Your task to perform on an android device: Search for duracell triple a on ebay, select the first entry, add it to the cart, then select checkout. Image 0: 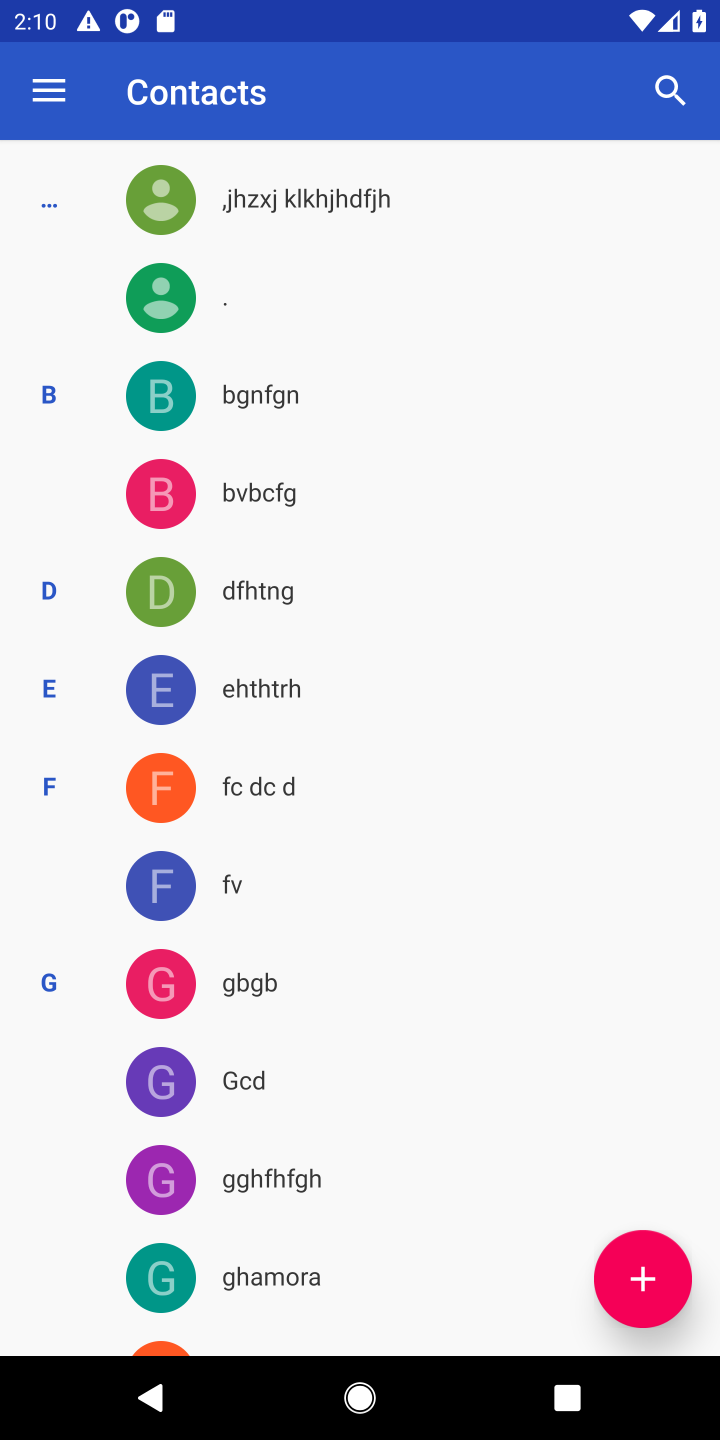
Step 0: press home button
Your task to perform on an android device: Search for duracell triple a on ebay, select the first entry, add it to the cart, then select checkout. Image 1: 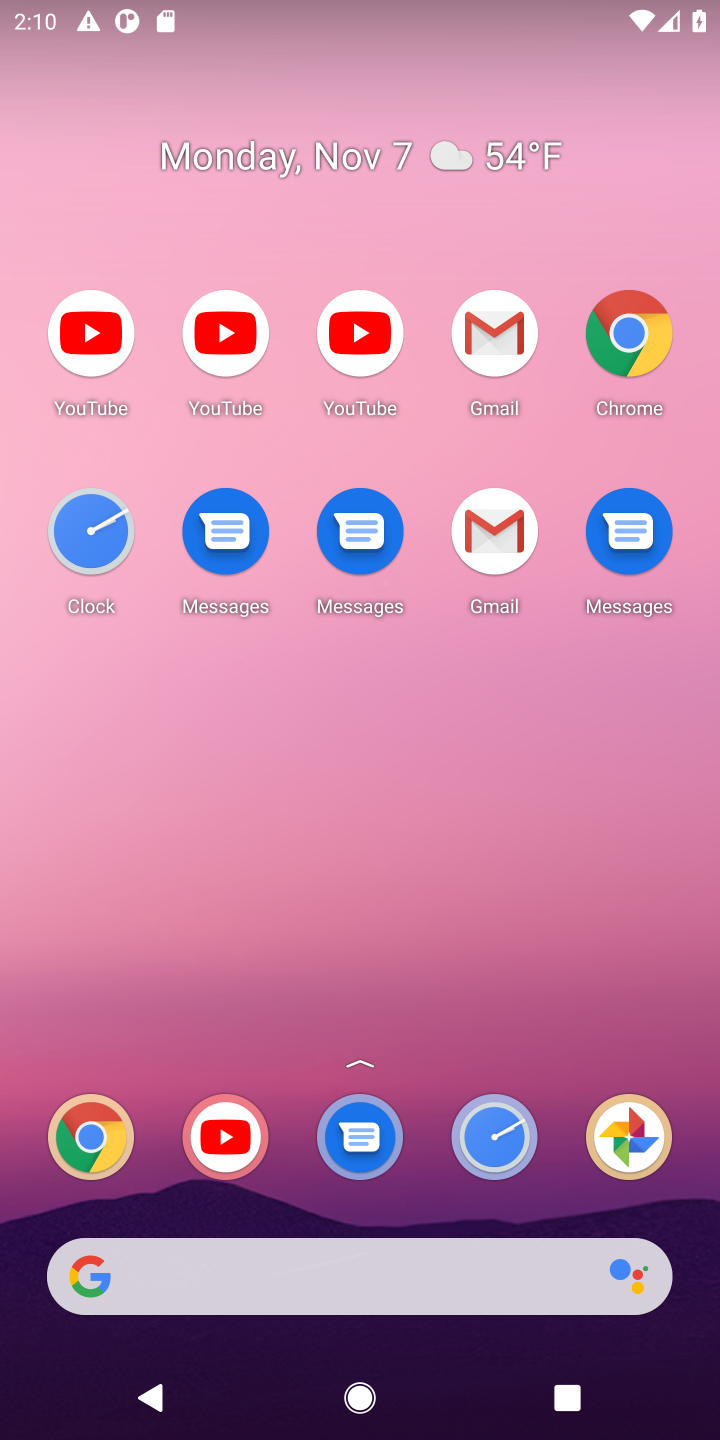
Step 1: drag from (427, 1222) to (401, 331)
Your task to perform on an android device: Search for duracell triple a on ebay, select the first entry, add it to the cart, then select checkout. Image 2: 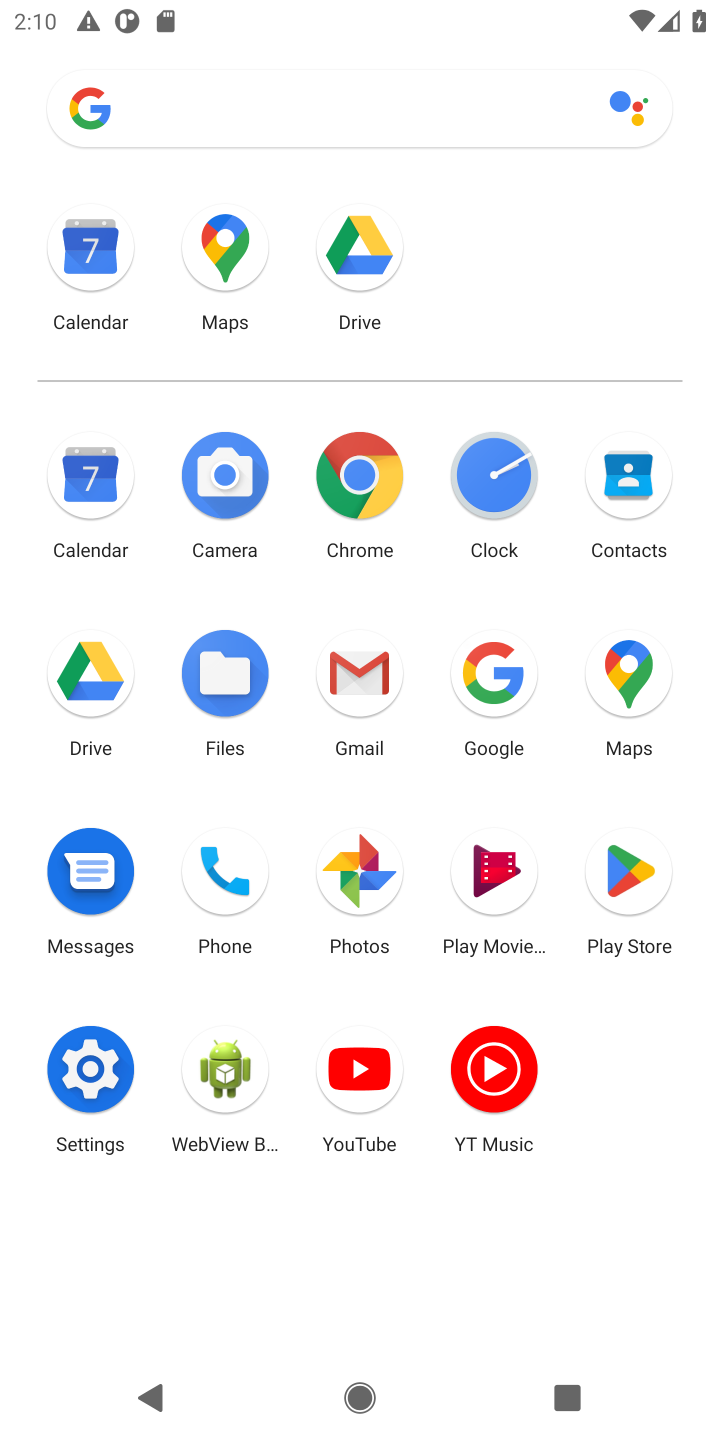
Step 2: click (364, 482)
Your task to perform on an android device: Search for duracell triple a on ebay, select the first entry, add it to the cart, then select checkout. Image 3: 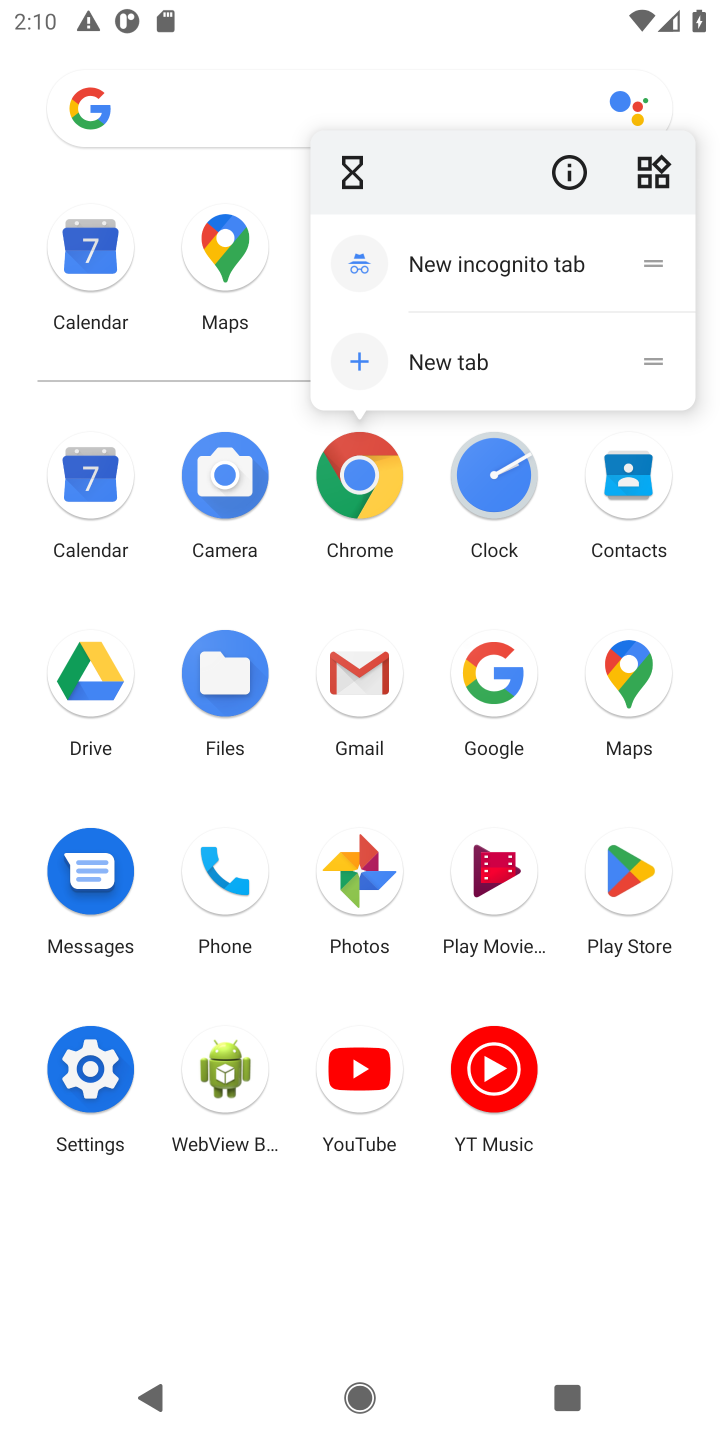
Step 3: click (361, 482)
Your task to perform on an android device: Search for duracell triple a on ebay, select the first entry, add it to the cart, then select checkout. Image 4: 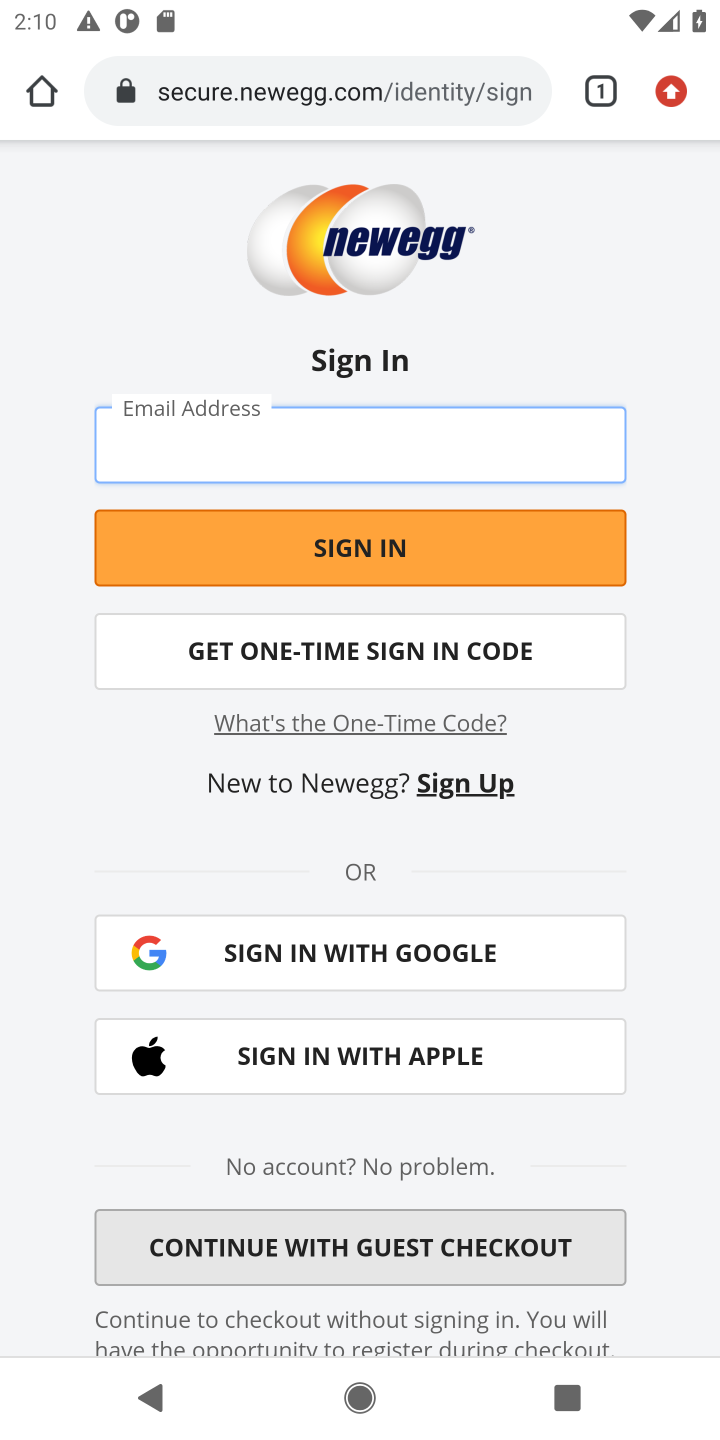
Step 4: click (360, 81)
Your task to perform on an android device: Search for duracell triple a on ebay, select the first entry, add it to the cart, then select checkout. Image 5: 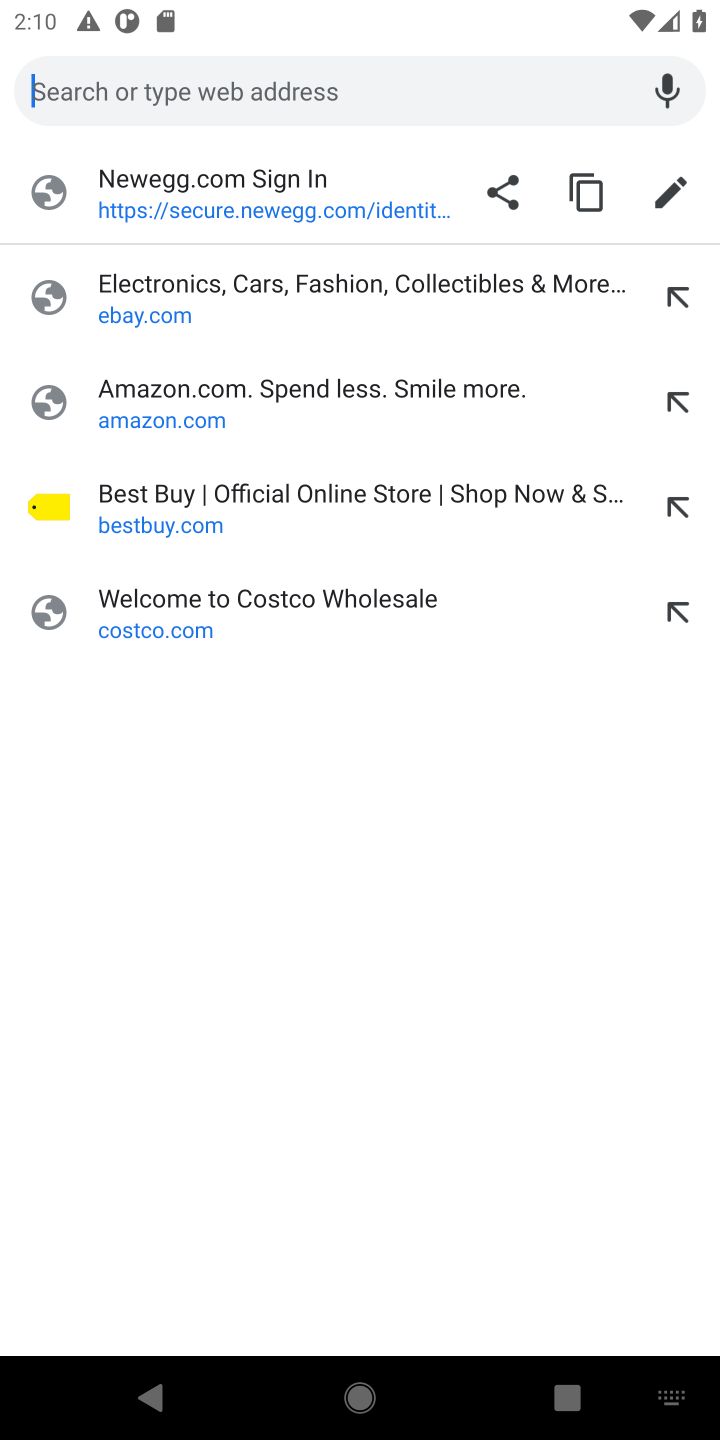
Step 5: type "ebay.com"
Your task to perform on an android device: Search for duracell triple a on ebay, select the first entry, add it to the cart, then select checkout. Image 6: 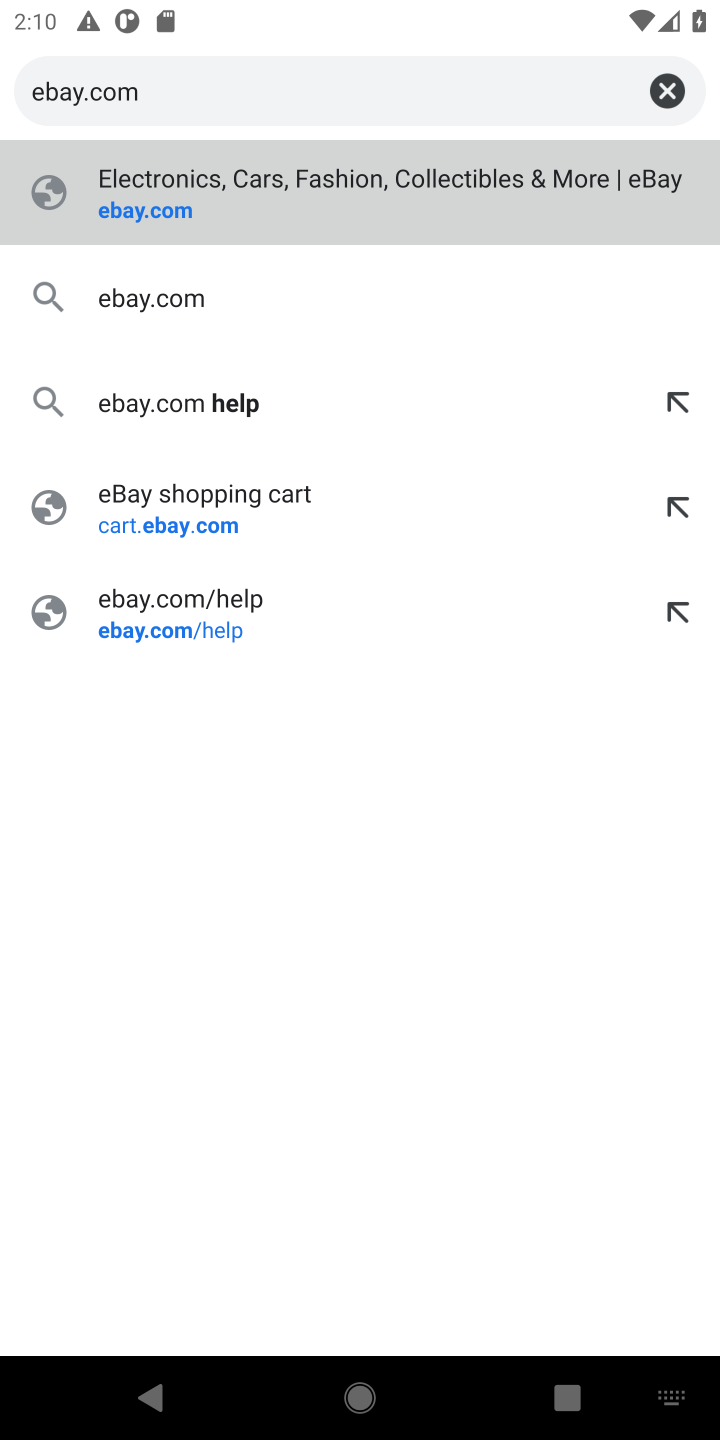
Step 6: press enter
Your task to perform on an android device: Search for duracell triple a on ebay, select the first entry, add it to the cart, then select checkout. Image 7: 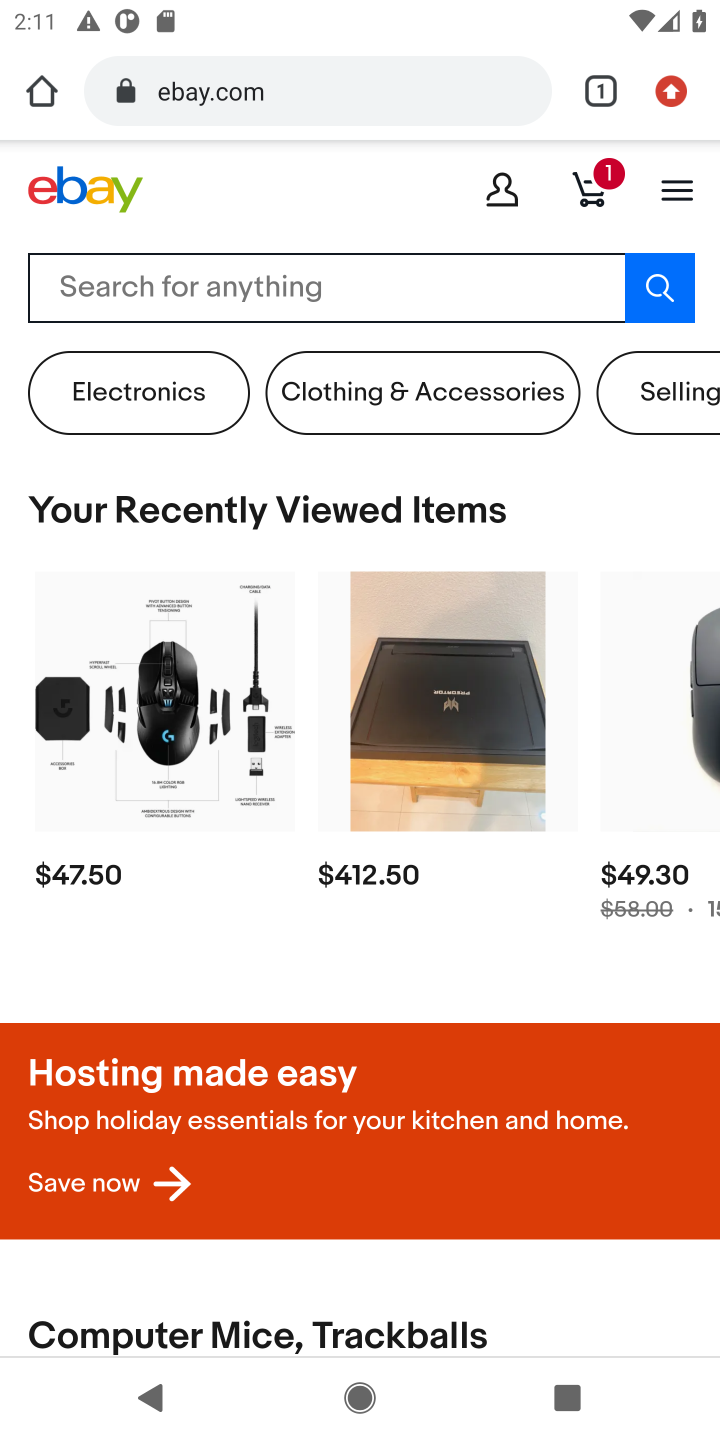
Step 7: click (309, 300)
Your task to perform on an android device: Search for duracell triple a on ebay, select the first entry, add it to the cart, then select checkout. Image 8: 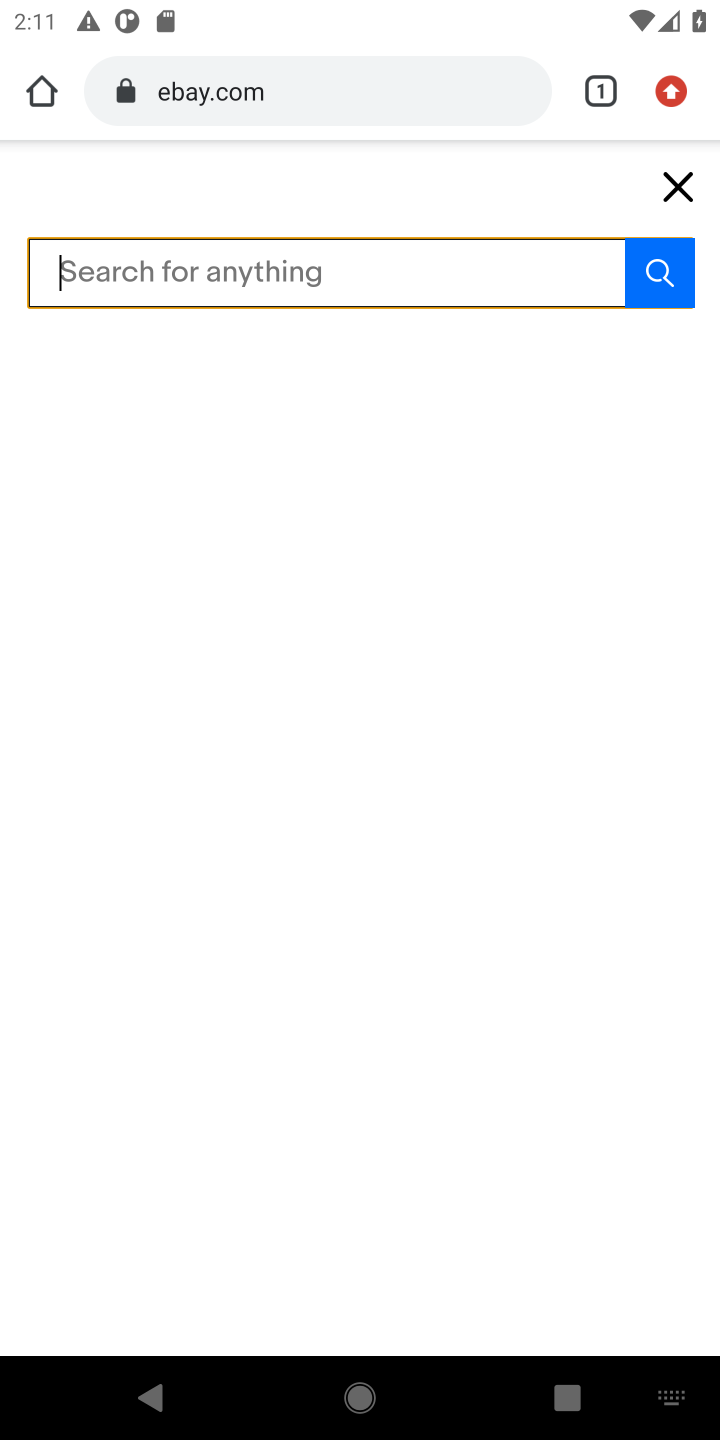
Step 8: type "duracell triple a"
Your task to perform on an android device: Search for duracell triple a on ebay, select the first entry, add it to the cart, then select checkout. Image 9: 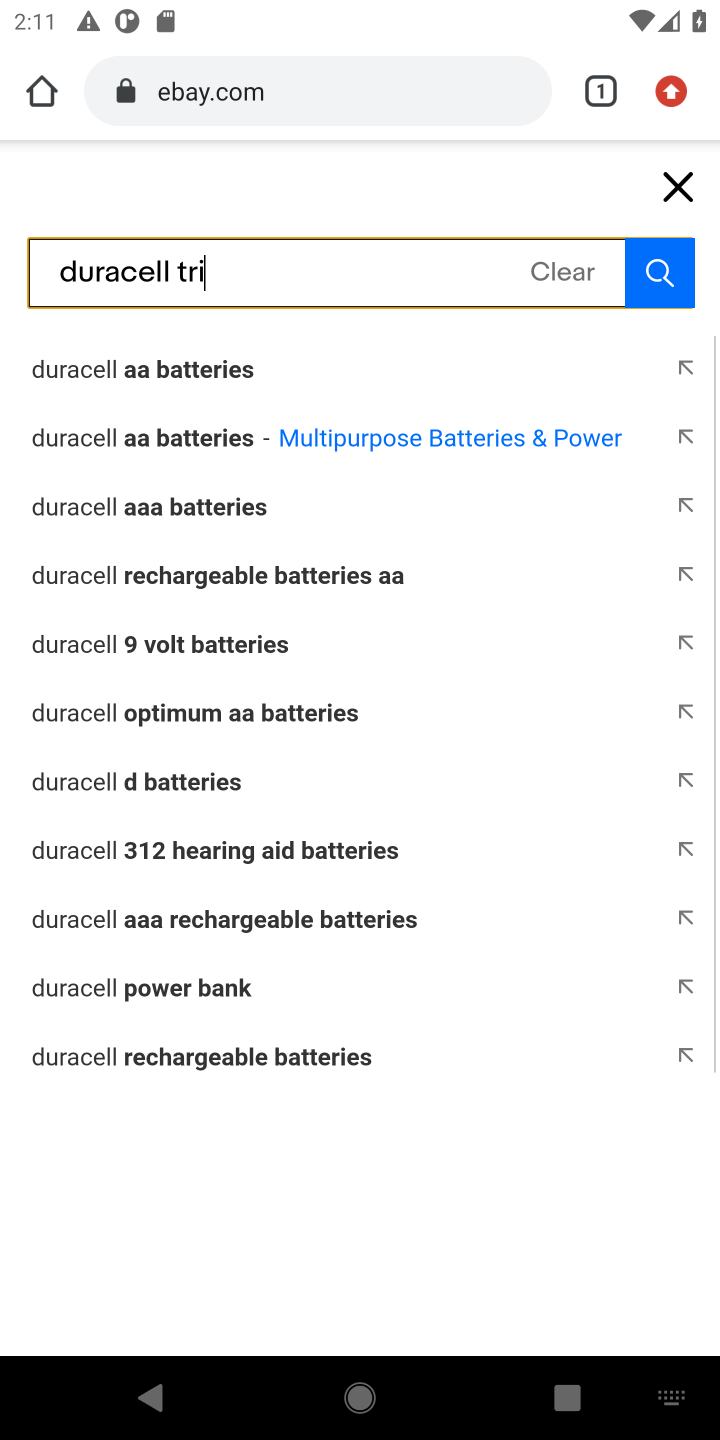
Step 9: press enter
Your task to perform on an android device: Search for duracell triple a on ebay, select the first entry, add it to the cart, then select checkout. Image 10: 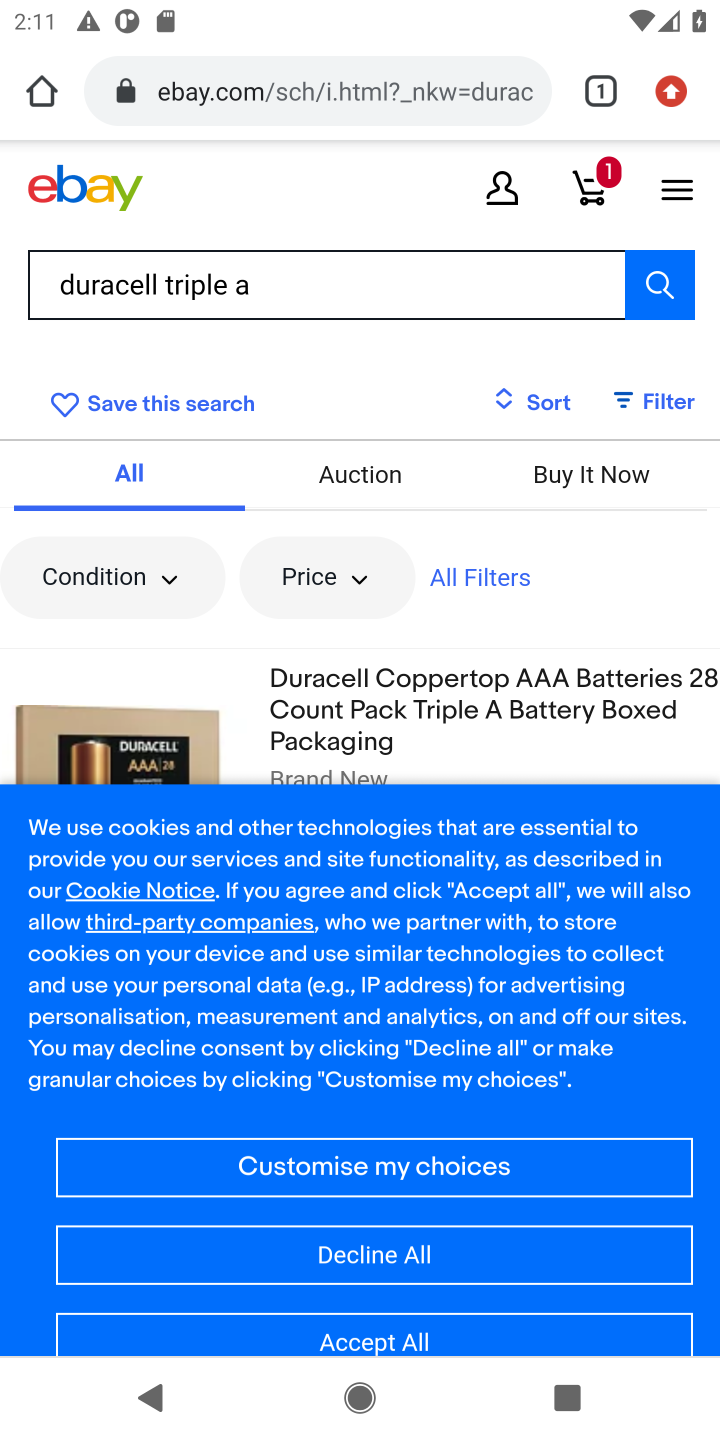
Step 10: click (415, 709)
Your task to perform on an android device: Search for duracell triple a on ebay, select the first entry, add it to the cart, then select checkout. Image 11: 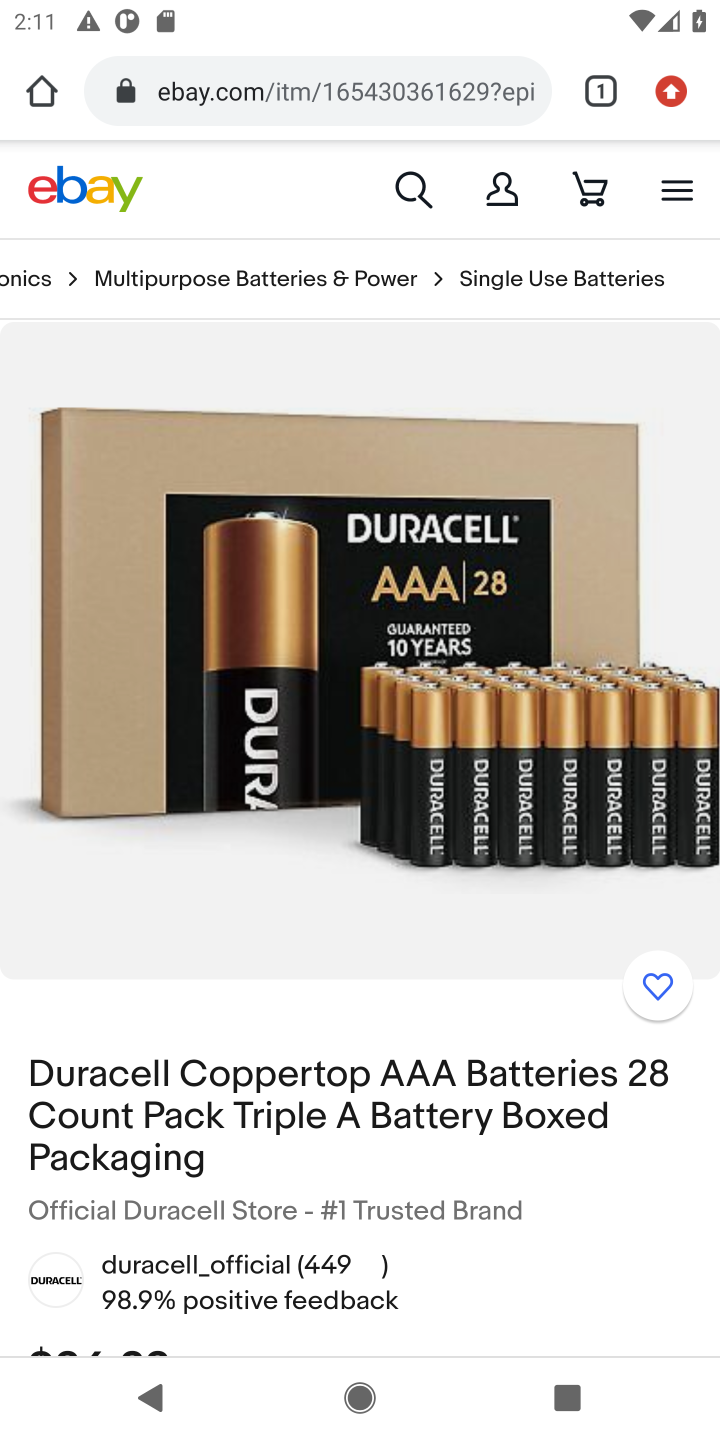
Step 11: drag from (452, 961) to (433, 310)
Your task to perform on an android device: Search for duracell triple a on ebay, select the first entry, add it to the cart, then select checkout. Image 12: 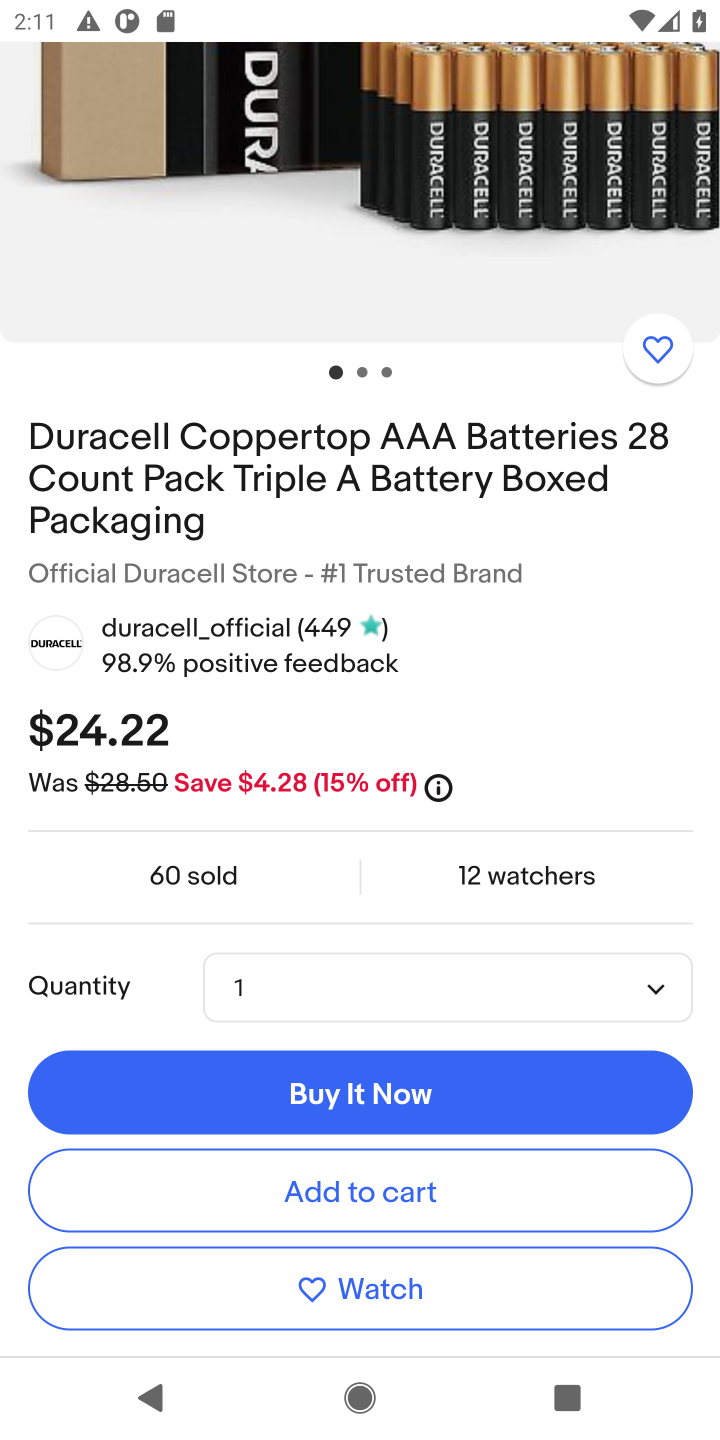
Step 12: click (453, 1209)
Your task to perform on an android device: Search for duracell triple a on ebay, select the first entry, add it to the cart, then select checkout. Image 13: 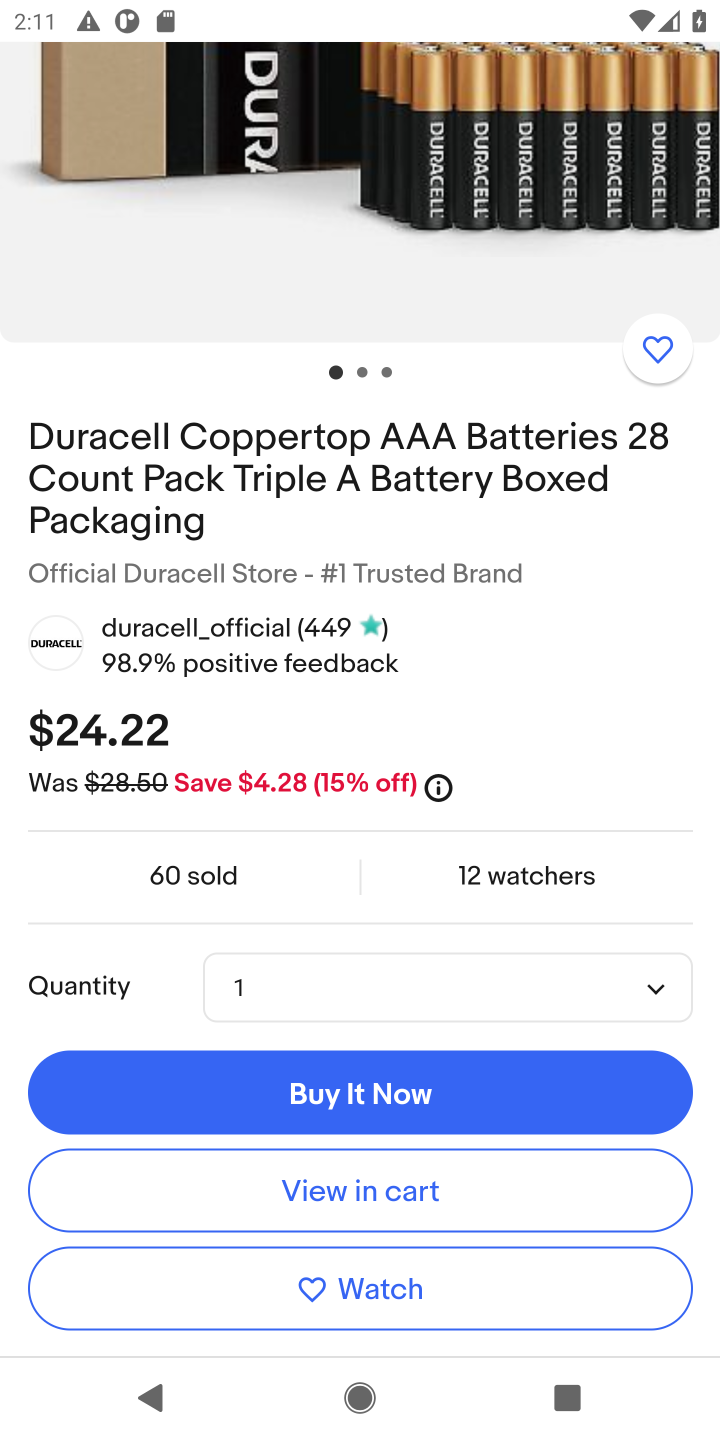
Step 13: click (429, 1201)
Your task to perform on an android device: Search for duracell triple a on ebay, select the first entry, add it to the cart, then select checkout. Image 14: 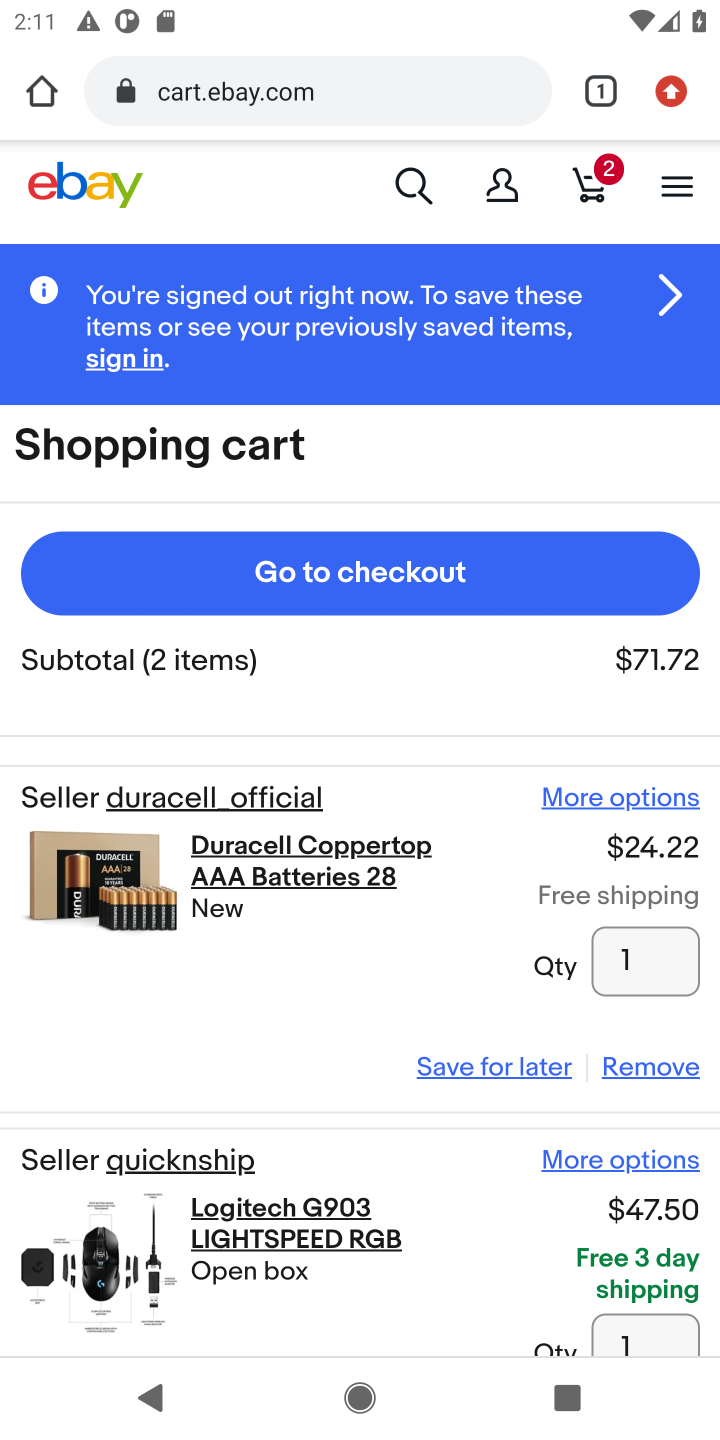
Step 14: click (481, 559)
Your task to perform on an android device: Search for duracell triple a on ebay, select the first entry, add it to the cart, then select checkout. Image 15: 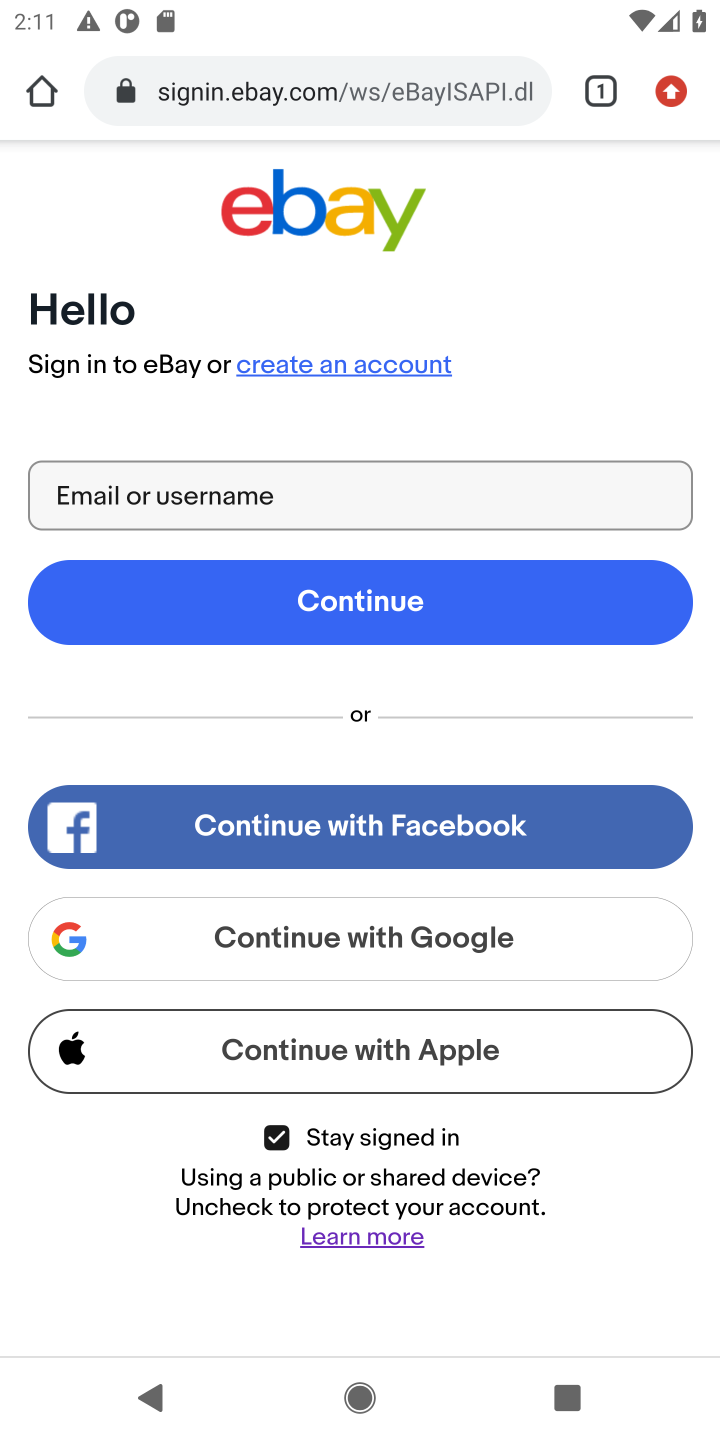
Step 15: task complete